Your task to perform on an android device: Open accessibility settings Image 0: 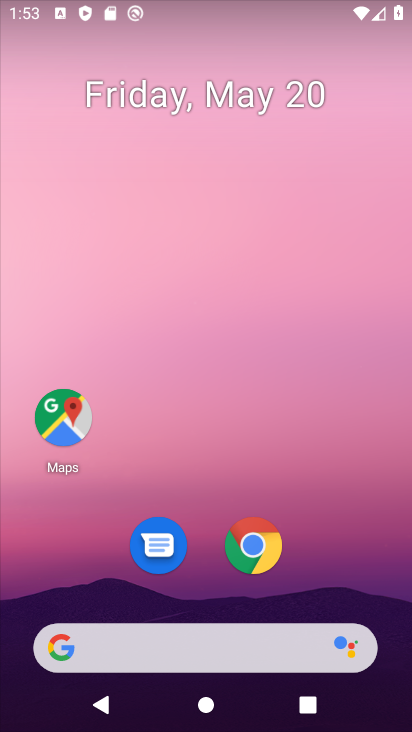
Step 0: drag from (294, 555) to (356, 49)
Your task to perform on an android device: Open accessibility settings Image 1: 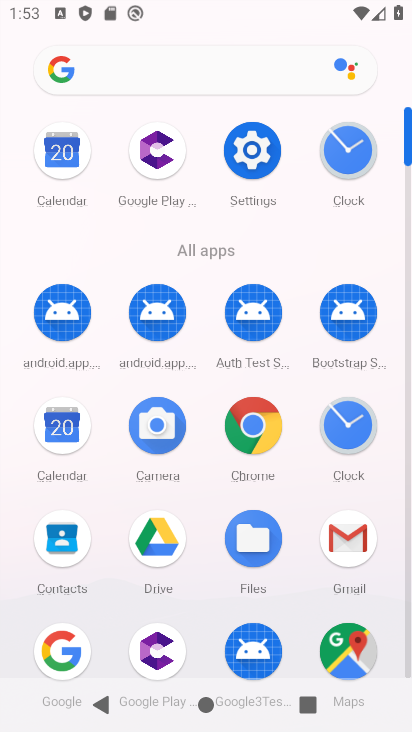
Step 1: click (262, 164)
Your task to perform on an android device: Open accessibility settings Image 2: 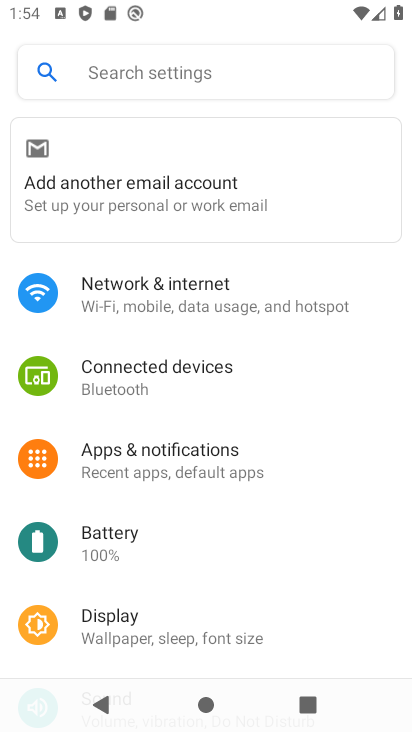
Step 2: drag from (181, 633) to (223, 56)
Your task to perform on an android device: Open accessibility settings Image 3: 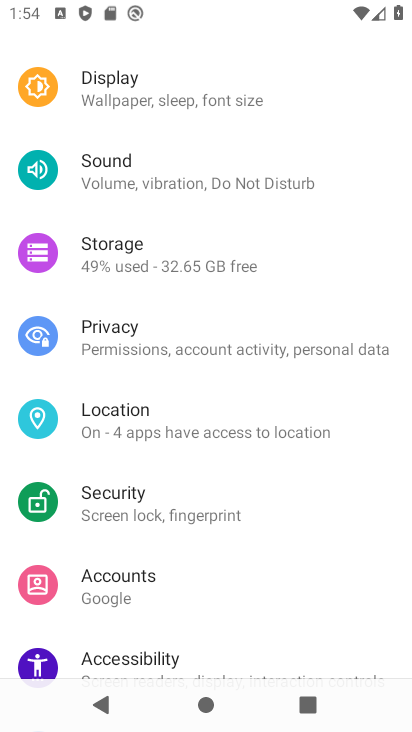
Step 3: drag from (261, 637) to (274, 388)
Your task to perform on an android device: Open accessibility settings Image 4: 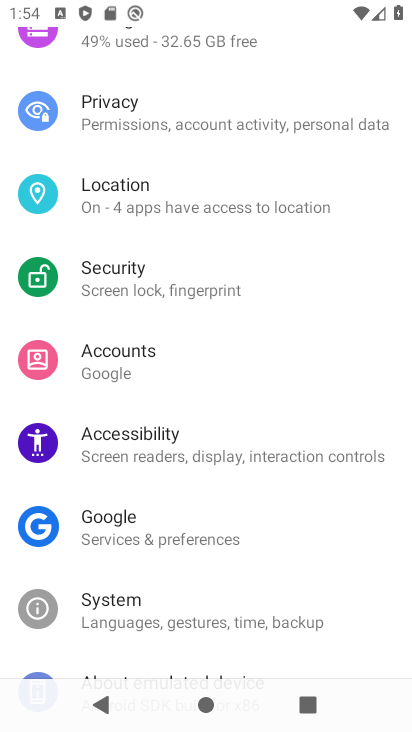
Step 4: click (151, 448)
Your task to perform on an android device: Open accessibility settings Image 5: 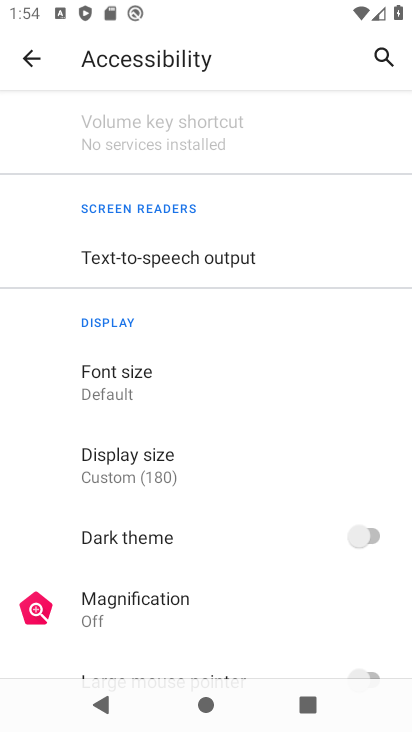
Step 5: task complete